Your task to perform on an android device: Open Maps and search for coffee Image 0: 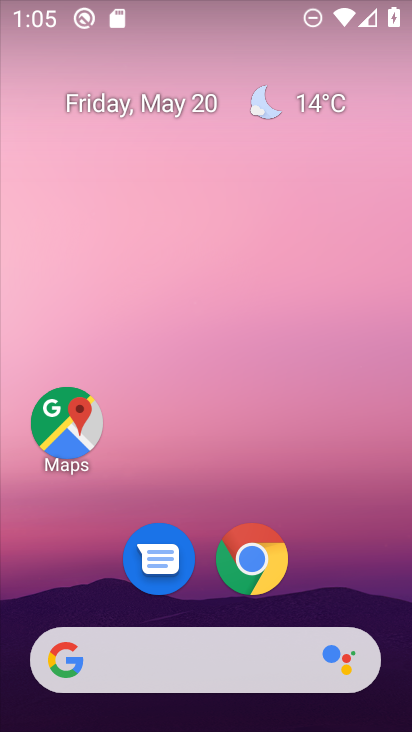
Step 0: click (67, 427)
Your task to perform on an android device: Open Maps and search for coffee Image 1: 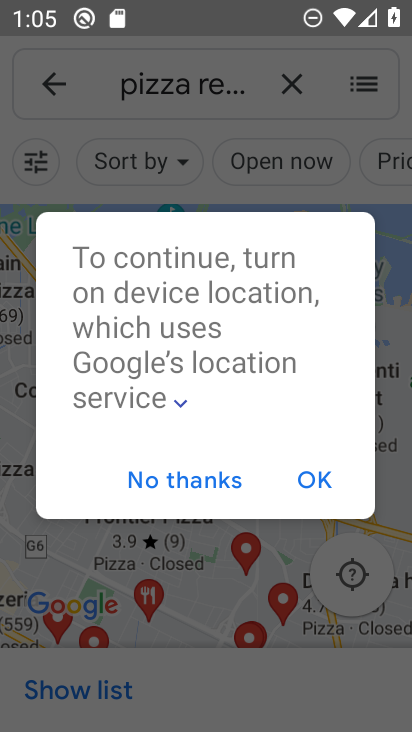
Step 1: click (281, 87)
Your task to perform on an android device: Open Maps and search for coffee Image 2: 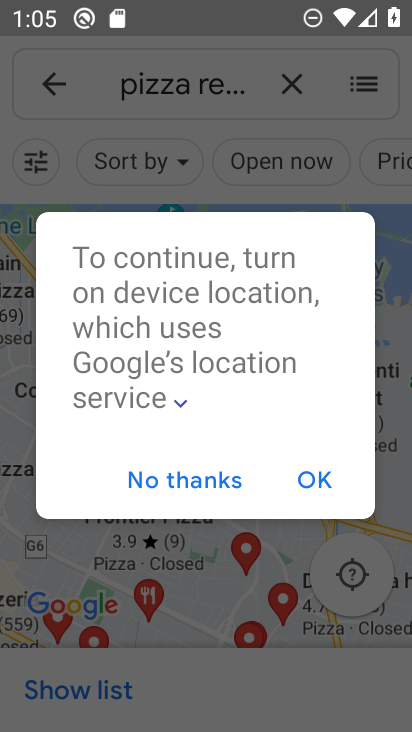
Step 2: click (296, 500)
Your task to perform on an android device: Open Maps and search for coffee Image 3: 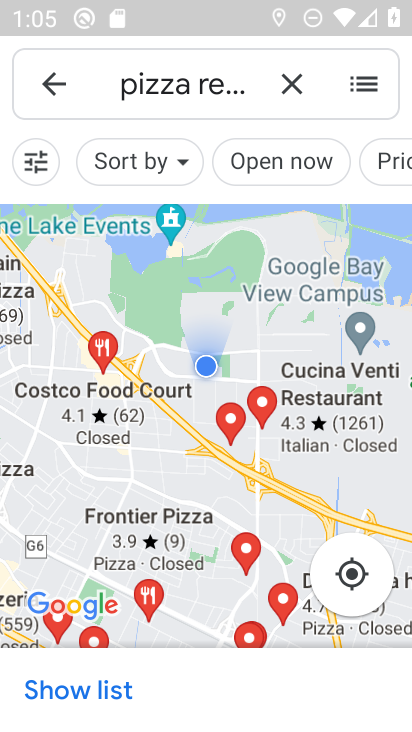
Step 3: click (289, 107)
Your task to perform on an android device: Open Maps and search for coffee Image 4: 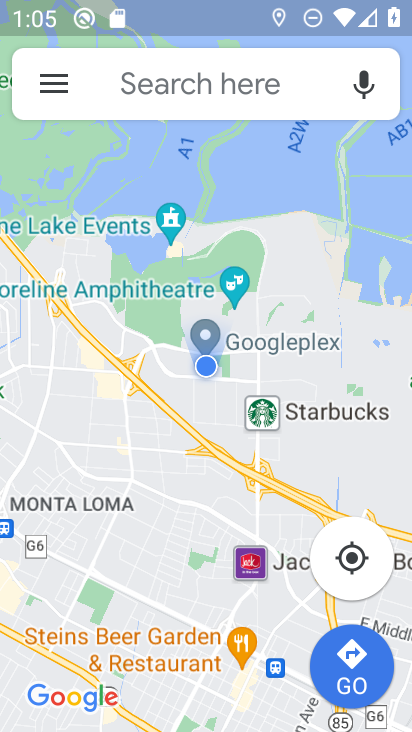
Step 4: click (281, 101)
Your task to perform on an android device: Open Maps and search for coffee Image 5: 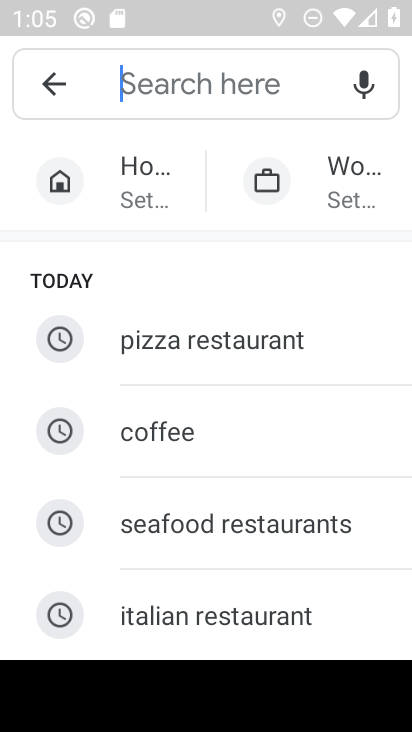
Step 5: click (270, 440)
Your task to perform on an android device: Open Maps and search for coffee Image 6: 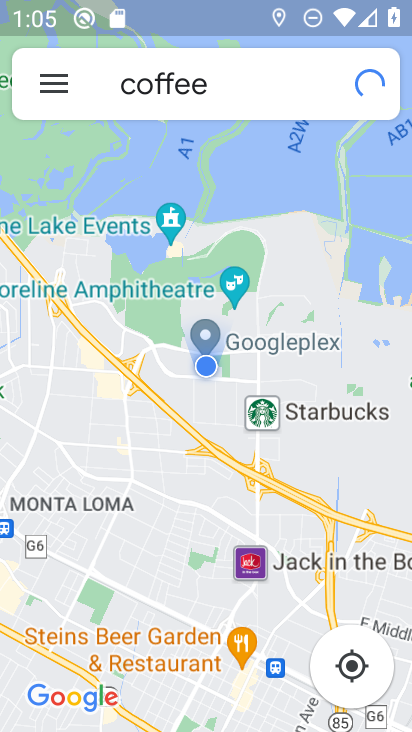
Step 6: task complete